Your task to perform on an android device: Go to Maps Image 0: 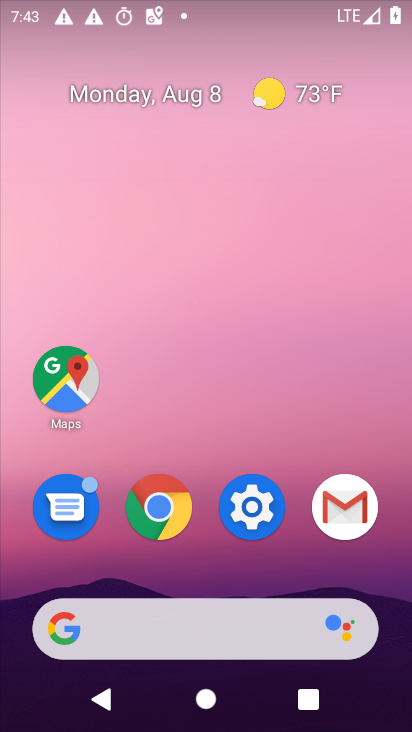
Step 0: click (59, 396)
Your task to perform on an android device: Go to Maps Image 1: 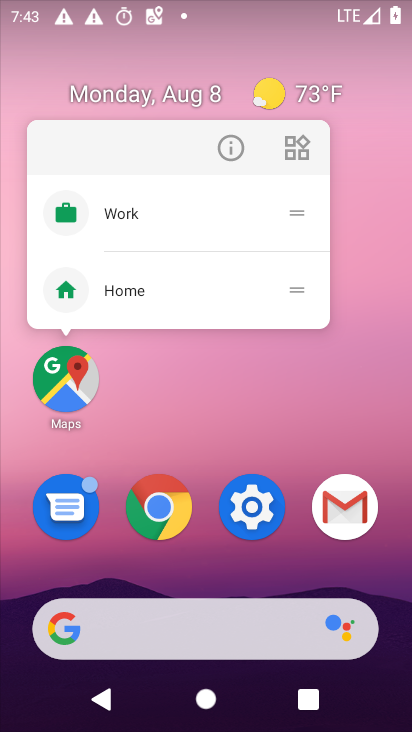
Step 1: click (64, 389)
Your task to perform on an android device: Go to Maps Image 2: 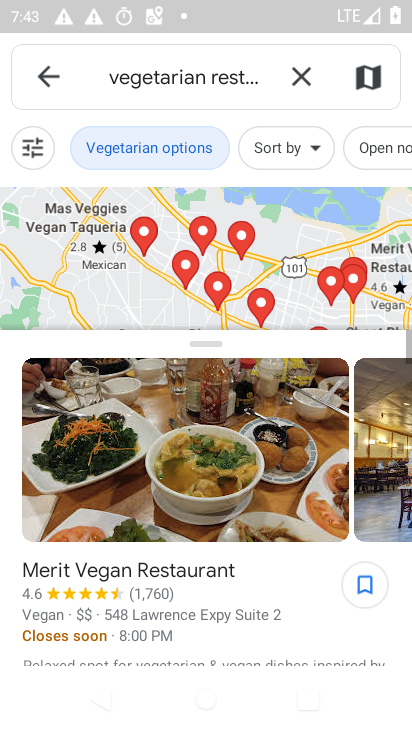
Step 2: click (52, 78)
Your task to perform on an android device: Go to Maps Image 3: 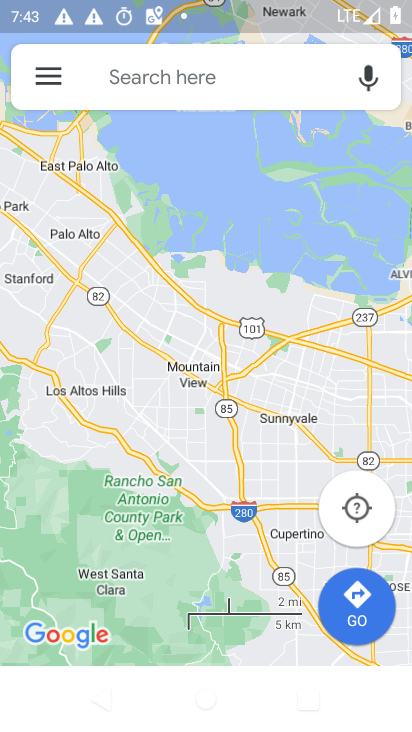
Step 3: click (362, 503)
Your task to perform on an android device: Go to Maps Image 4: 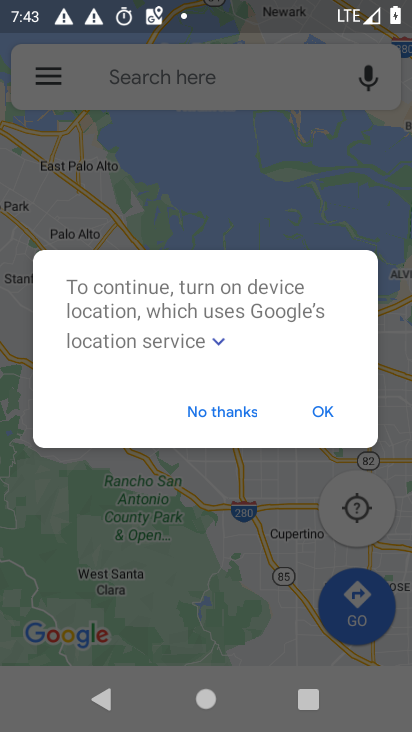
Step 4: click (329, 409)
Your task to perform on an android device: Go to Maps Image 5: 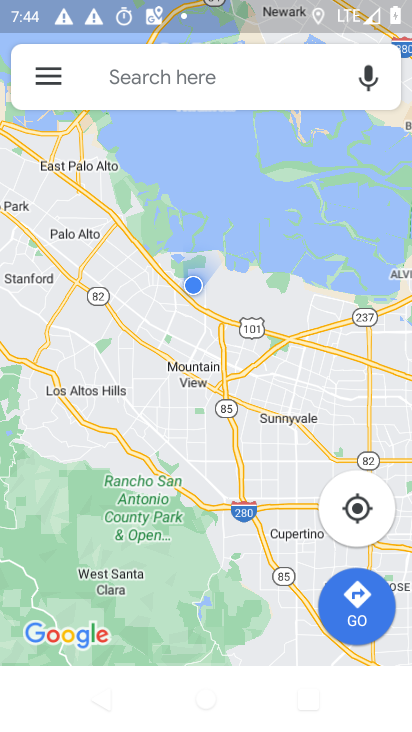
Step 5: task complete